Your task to perform on an android device: Set the phone to "Do not disturb". Image 0: 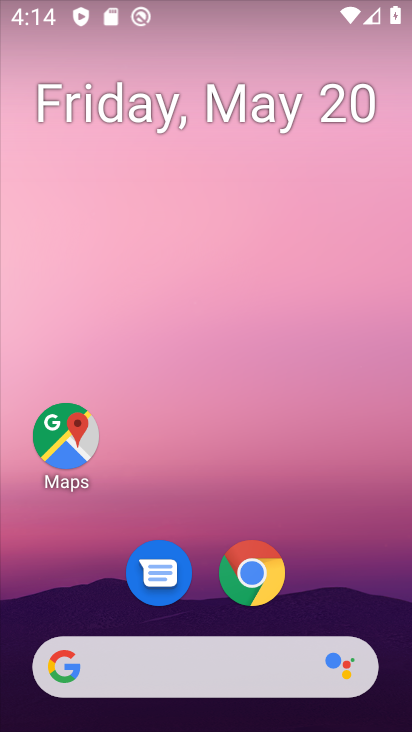
Step 0: drag from (369, 603) to (253, 166)
Your task to perform on an android device: Set the phone to "Do not disturb". Image 1: 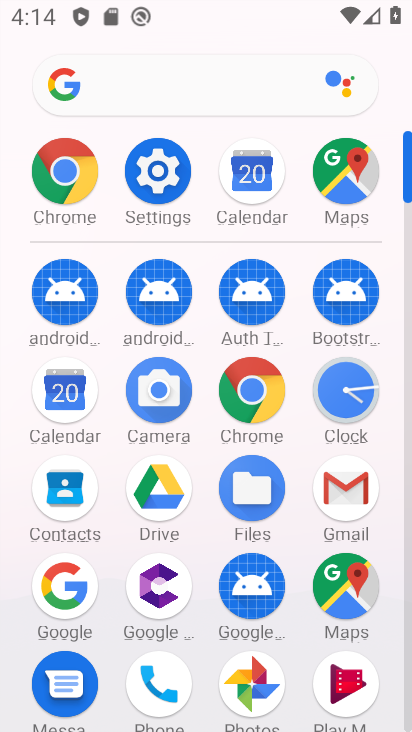
Step 1: click (159, 172)
Your task to perform on an android device: Set the phone to "Do not disturb". Image 2: 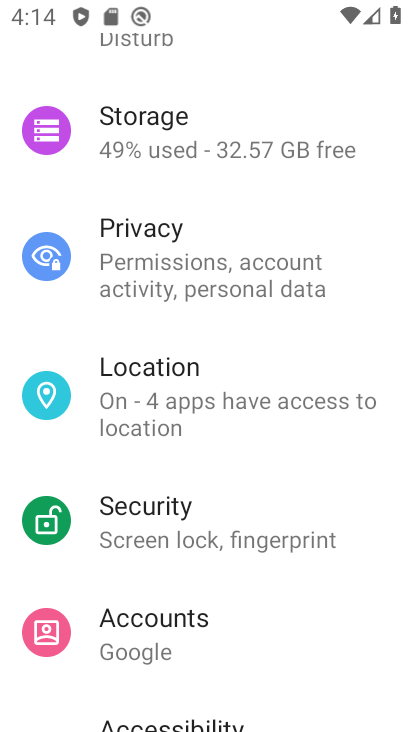
Step 2: drag from (208, 161) to (236, 613)
Your task to perform on an android device: Set the phone to "Do not disturb". Image 3: 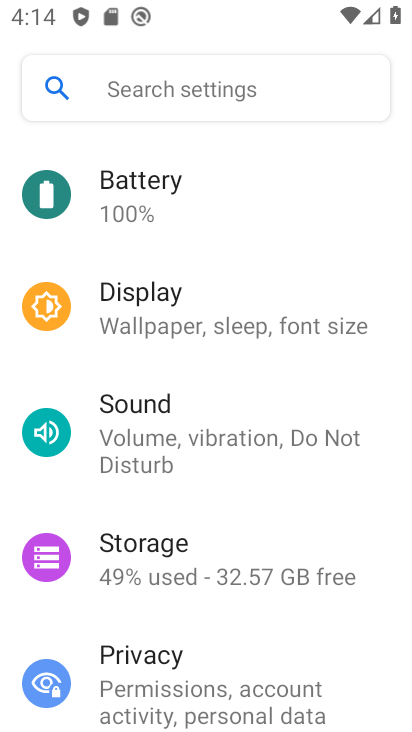
Step 3: click (208, 465)
Your task to perform on an android device: Set the phone to "Do not disturb". Image 4: 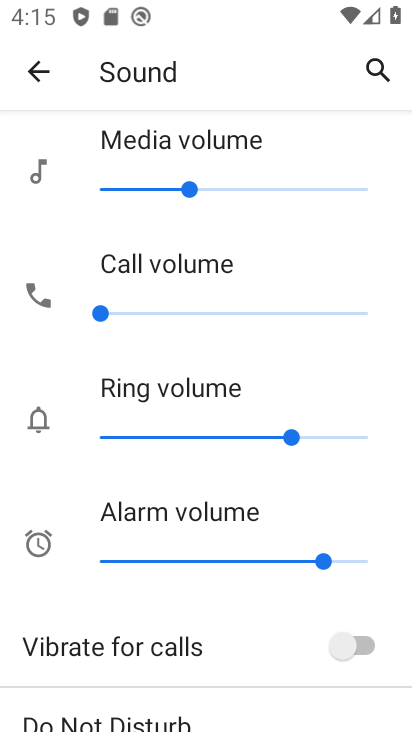
Step 4: drag from (239, 628) to (234, 294)
Your task to perform on an android device: Set the phone to "Do not disturb". Image 5: 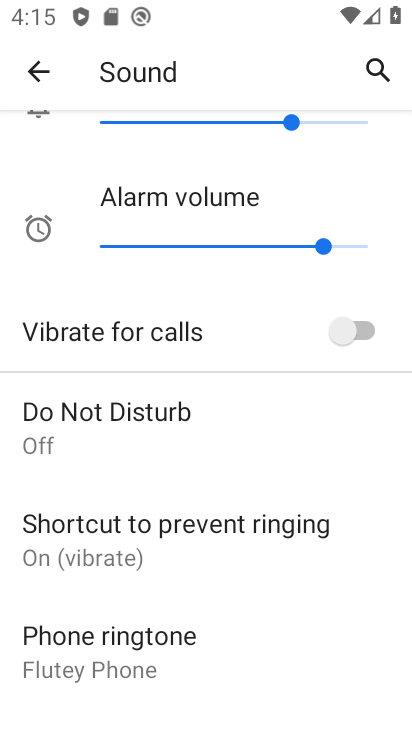
Step 5: click (237, 451)
Your task to perform on an android device: Set the phone to "Do not disturb". Image 6: 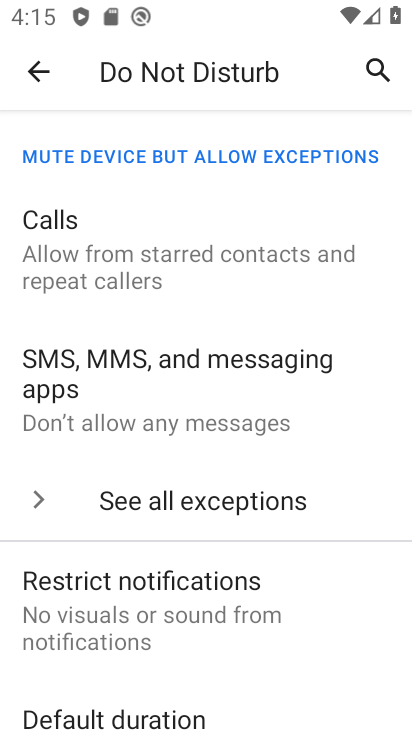
Step 6: drag from (284, 631) to (253, 285)
Your task to perform on an android device: Set the phone to "Do not disturb". Image 7: 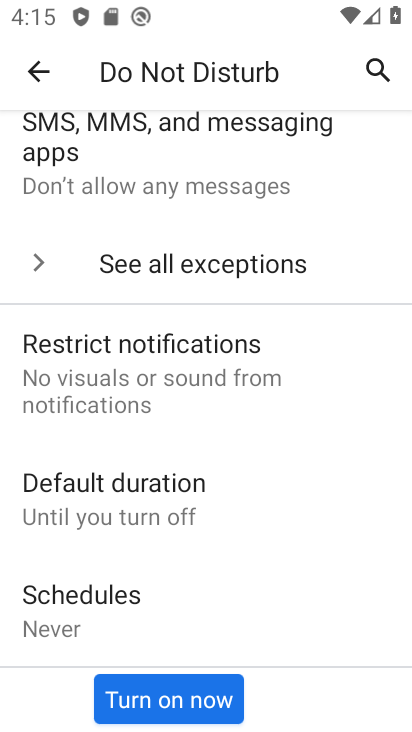
Step 7: click (217, 688)
Your task to perform on an android device: Set the phone to "Do not disturb". Image 8: 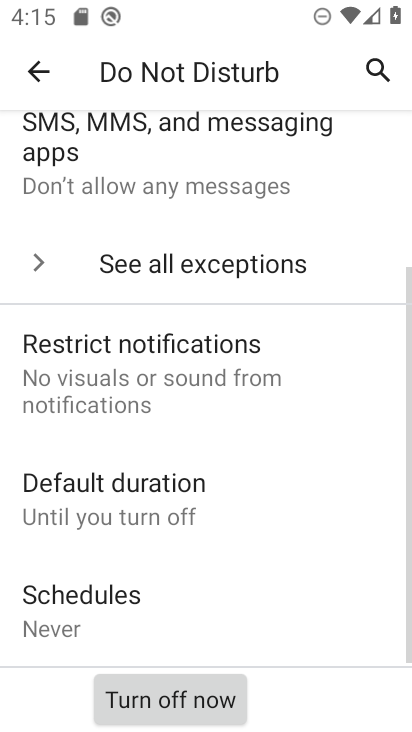
Step 8: task complete